Your task to perform on an android device: turn on location history Image 0: 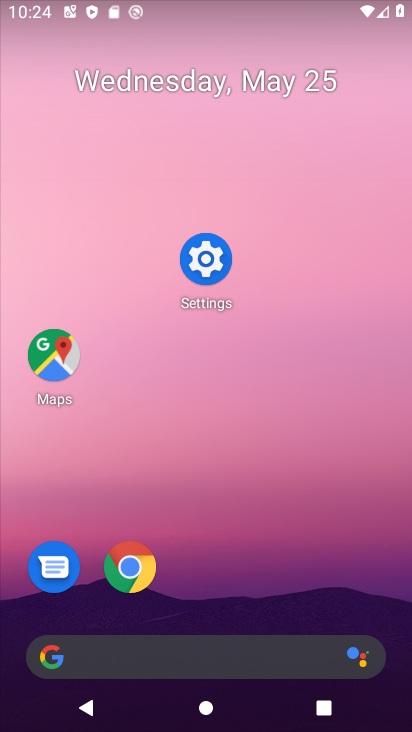
Step 0: drag from (225, 570) to (280, 259)
Your task to perform on an android device: turn on location history Image 1: 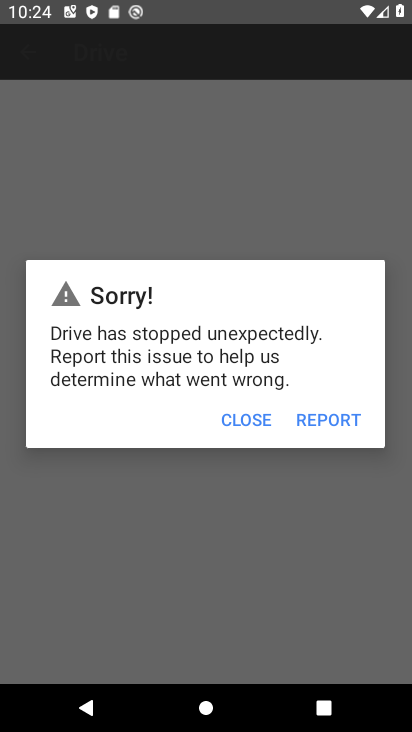
Step 1: press home button
Your task to perform on an android device: turn on location history Image 2: 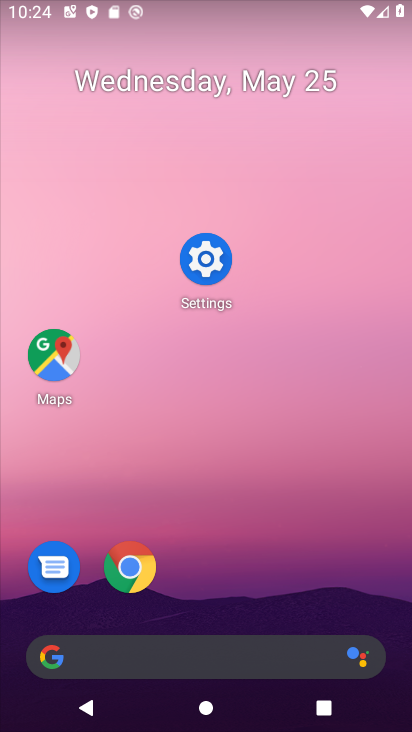
Step 2: drag from (307, 567) to (318, 333)
Your task to perform on an android device: turn on location history Image 3: 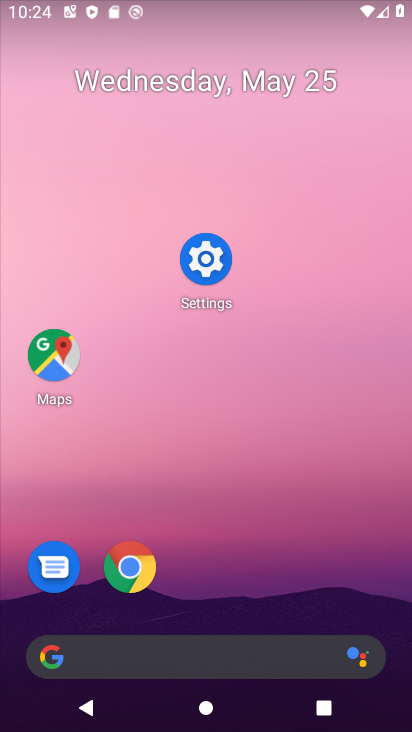
Step 3: click (199, 250)
Your task to perform on an android device: turn on location history Image 4: 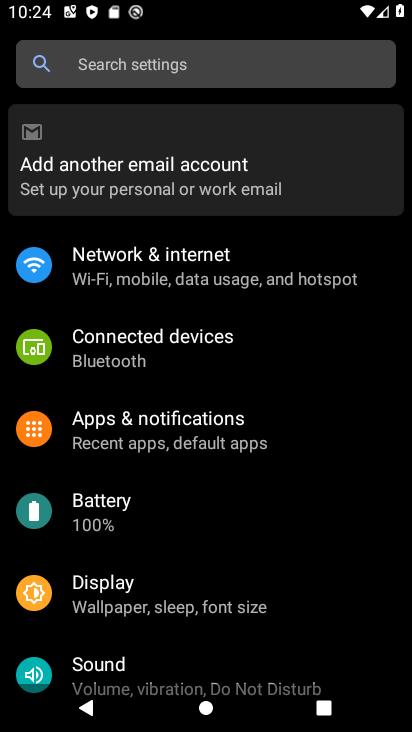
Step 4: drag from (148, 614) to (265, 152)
Your task to perform on an android device: turn on location history Image 5: 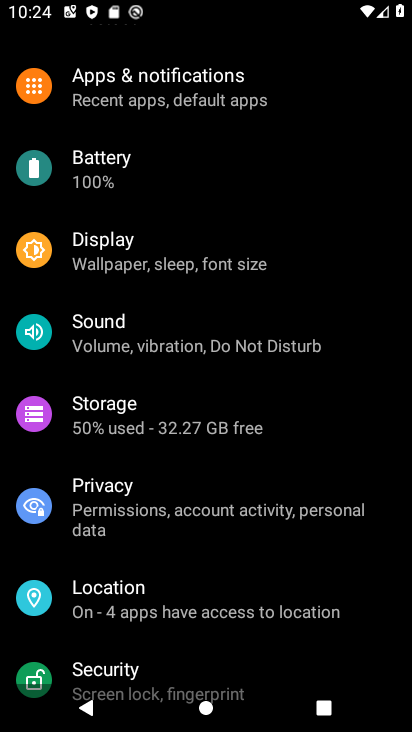
Step 5: click (141, 586)
Your task to perform on an android device: turn on location history Image 6: 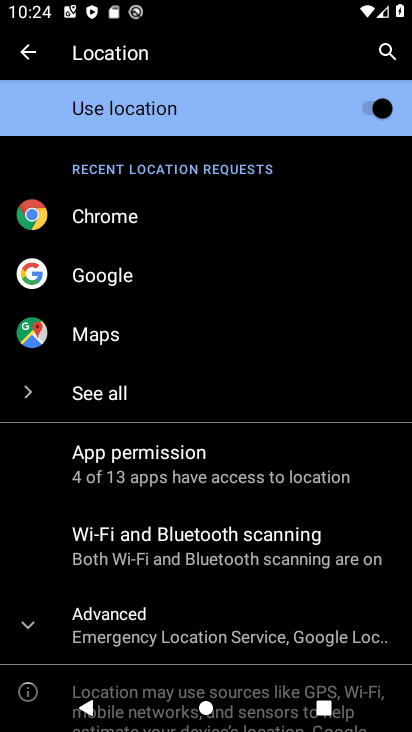
Step 6: drag from (132, 579) to (215, 220)
Your task to perform on an android device: turn on location history Image 7: 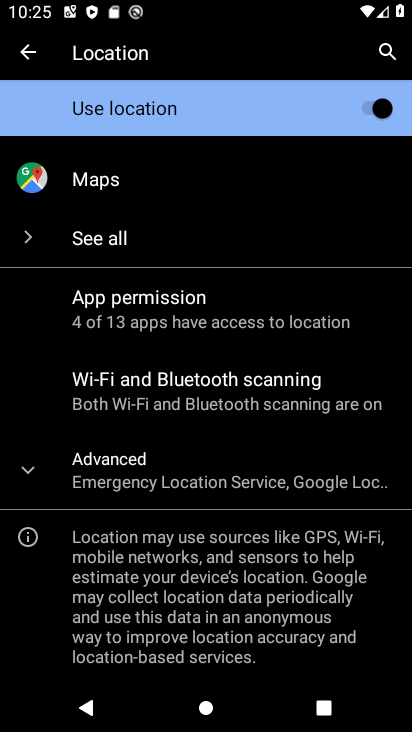
Step 7: click (178, 447)
Your task to perform on an android device: turn on location history Image 8: 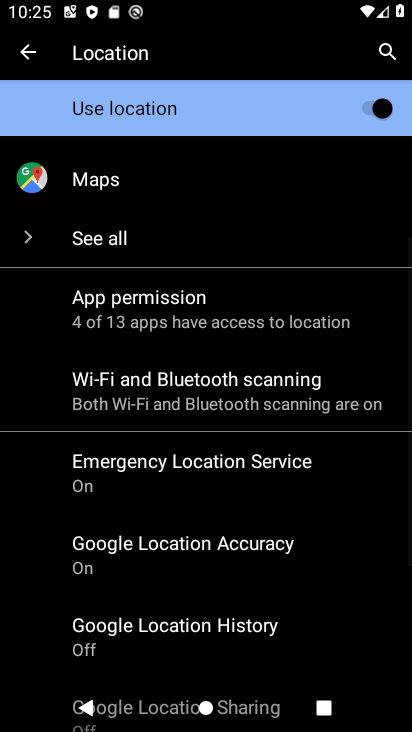
Step 8: click (246, 614)
Your task to perform on an android device: turn on location history Image 9: 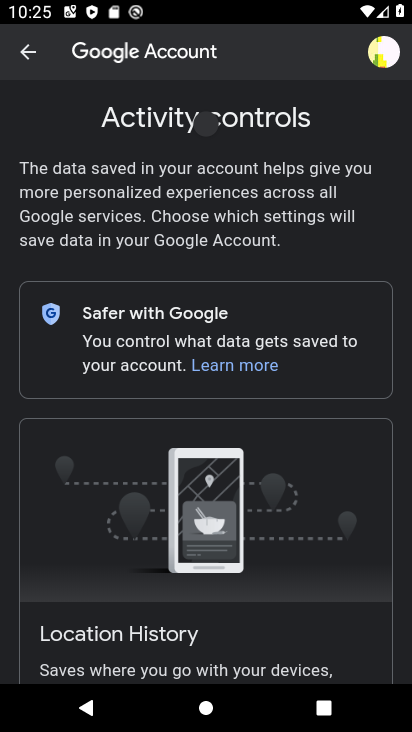
Step 9: drag from (319, 643) to (312, 212)
Your task to perform on an android device: turn on location history Image 10: 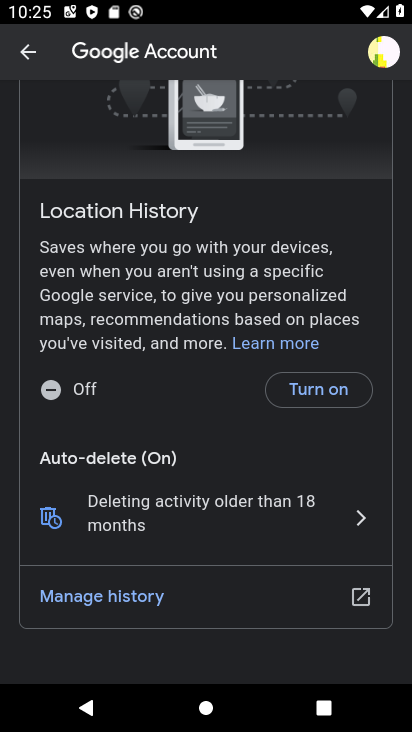
Step 10: click (328, 388)
Your task to perform on an android device: turn on location history Image 11: 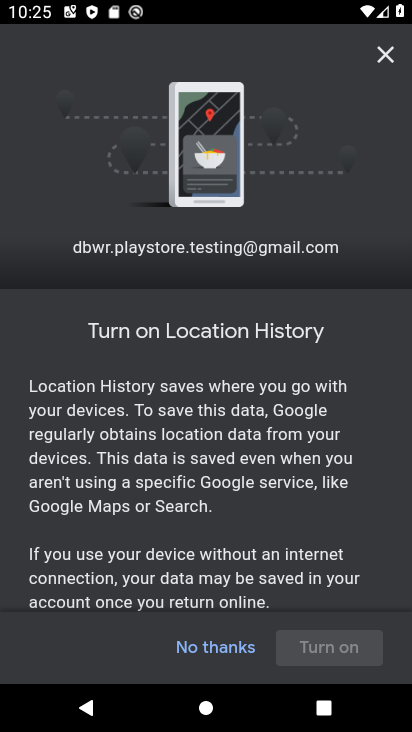
Step 11: drag from (290, 549) to (350, 79)
Your task to perform on an android device: turn on location history Image 12: 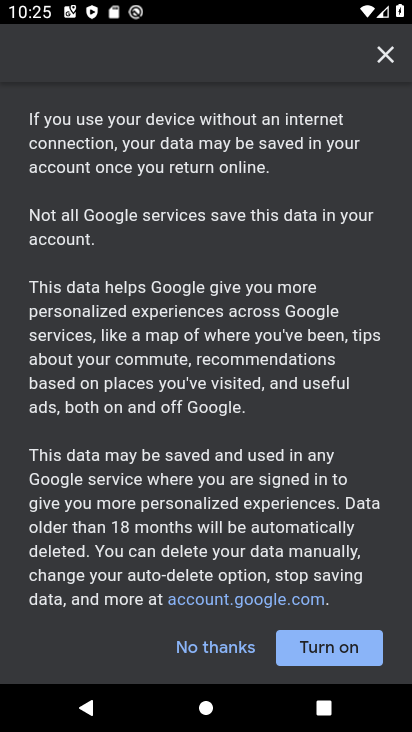
Step 12: drag from (328, 600) to (303, 121)
Your task to perform on an android device: turn on location history Image 13: 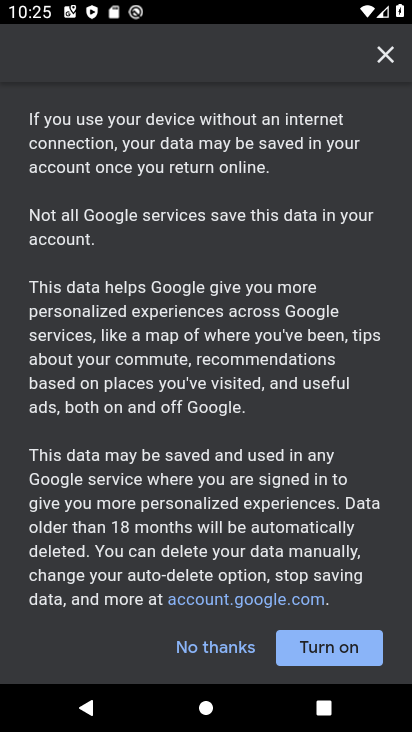
Step 13: click (323, 639)
Your task to perform on an android device: turn on location history Image 14: 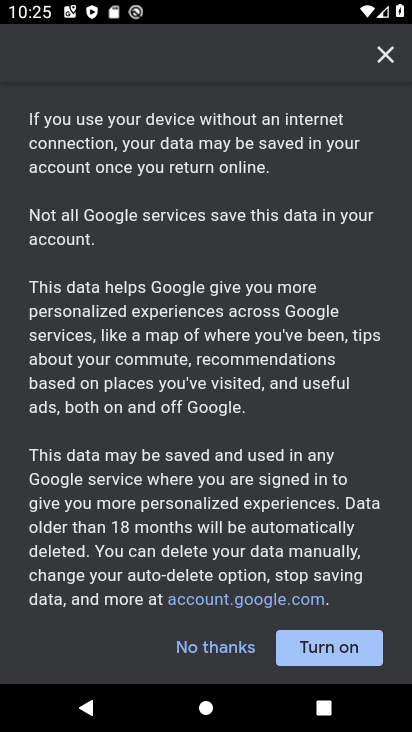
Step 14: task complete